Your task to perform on an android device: toggle show notifications on the lock screen Image 0: 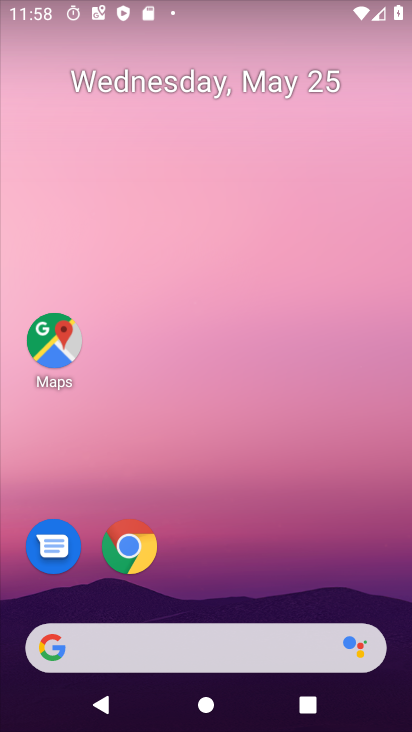
Step 0: drag from (288, 576) to (317, 11)
Your task to perform on an android device: toggle show notifications on the lock screen Image 1: 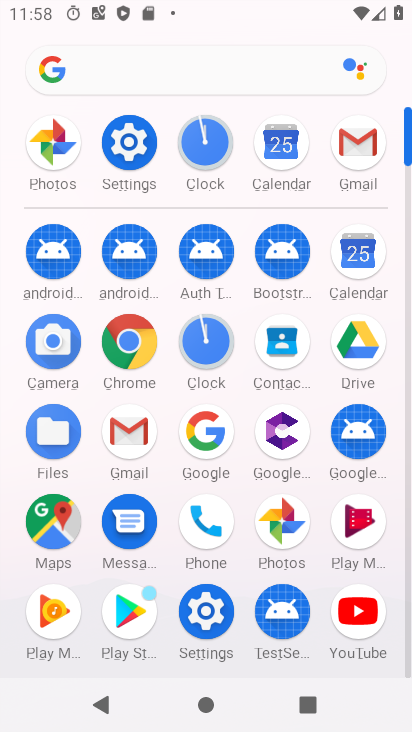
Step 1: click (211, 610)
Your task to perform on an android device: toggle show notifications on the lock screen Image 2: 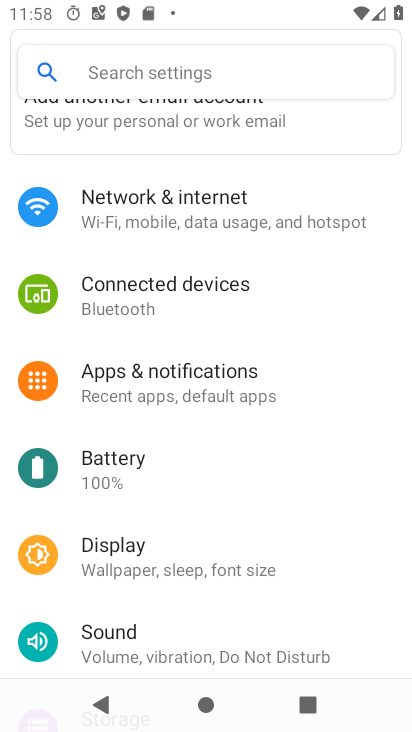
Step 2: click (180, 396)
Your task to perform on an android device: toggle show notifications on the lock screen Image 3: 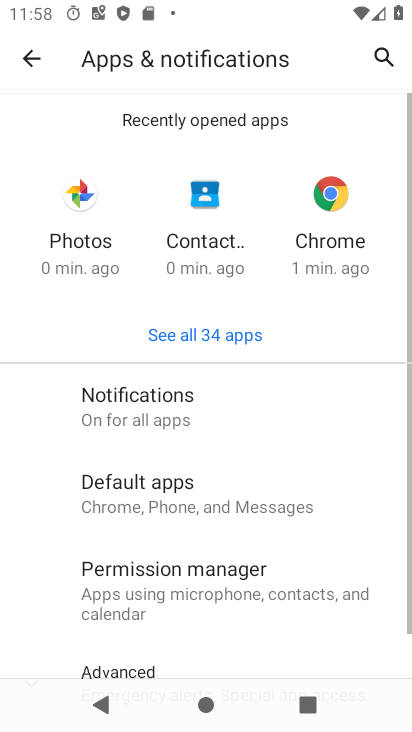
Step 3: click (160, 388)
Your task to perform on an android device: toggle show notifications on the lock screen Image 4: 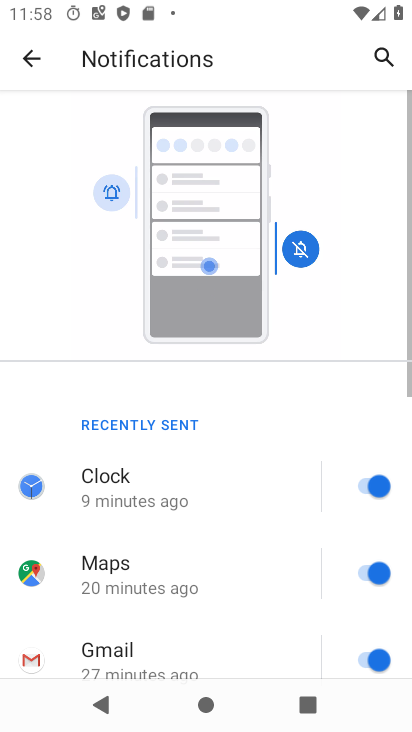
Step 4: drag from (154, 524) to (267, 81)
Your task to perform on an android device: toggle show notifications on the lock screen Image 5: 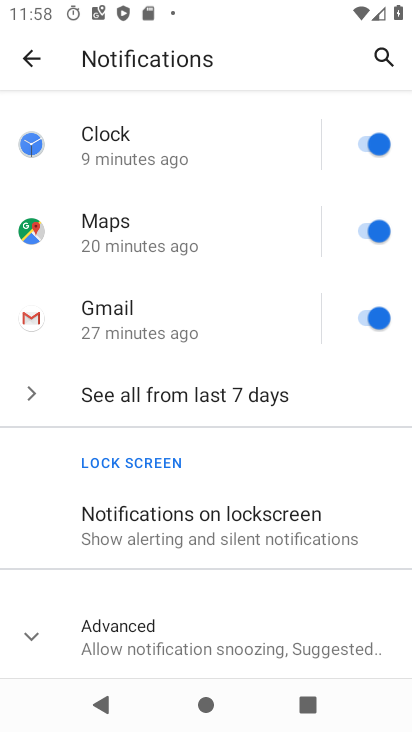
Step 5: click (202, 530)
Your task to perform on an android device: toggle show notifications on the lock screen Image 6: 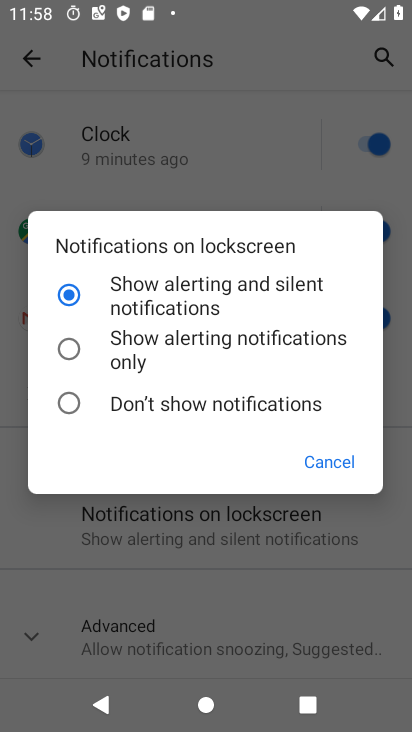
Step 6: click (178, 345)
Your task to perform on an android device: toggle show notifications on the lock screen Image 7: 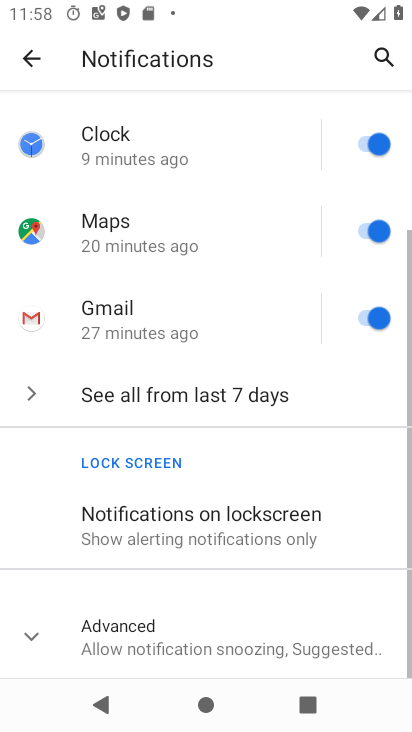
Step 7: task complete